Your task to perform on an android device: turn off sleep mode Image 0: 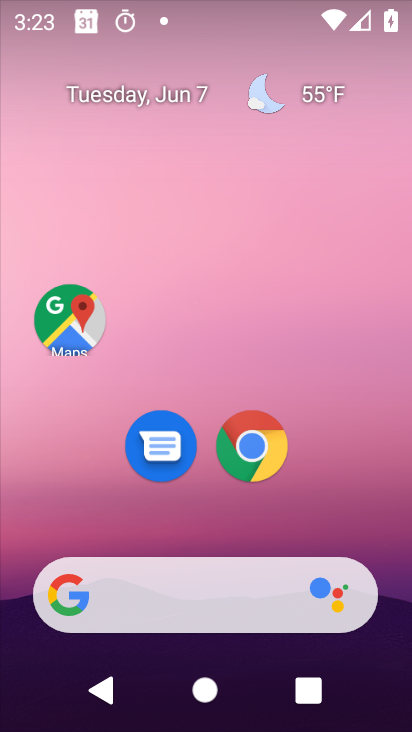
Step 0: drag from (226, 482) to (275, 2)
Your task to perform on an android device: turn off sleep mode Image 1: 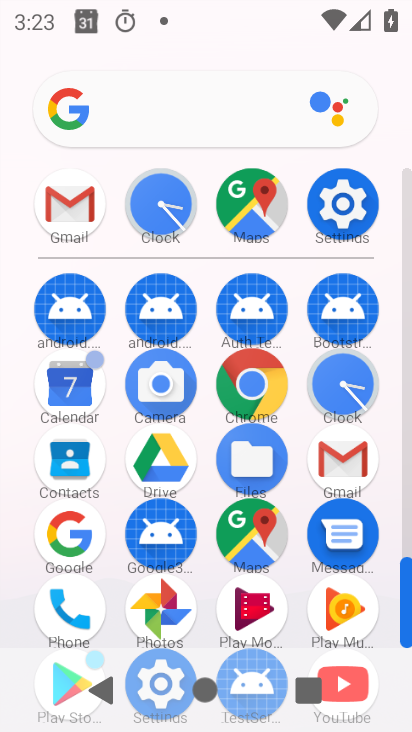
Step 1: click (334, 189)
Your task to perform on an android device: turn off sleep mode Image 2: 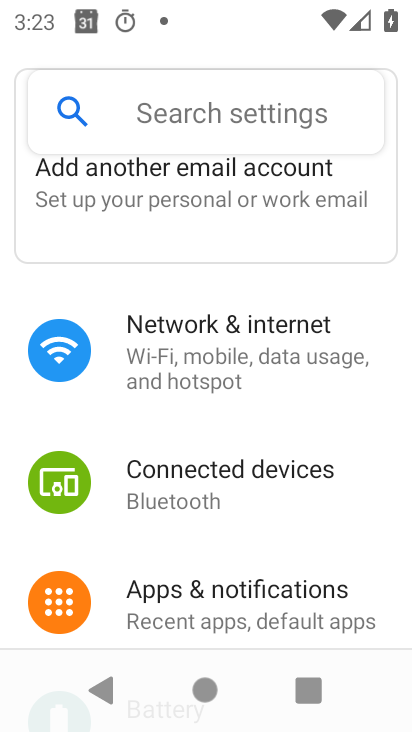
Step 2: click (261, 97)
Your task to perform on an android device: turn off sleep mode Image 3: 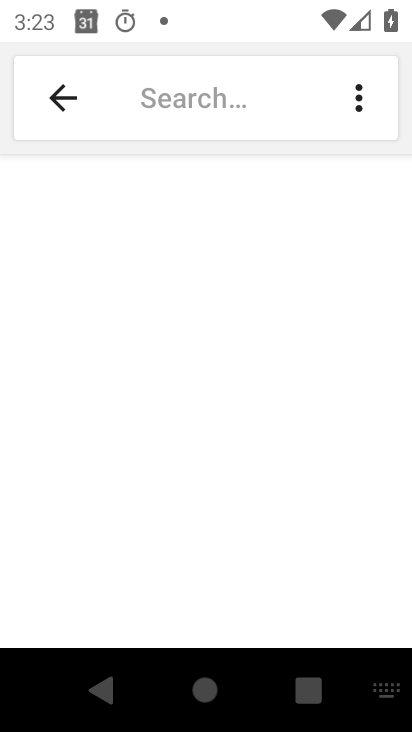
Step 3: type "sleep mode"
Your task to perform on an android device: turn off sleep mode Image 4: 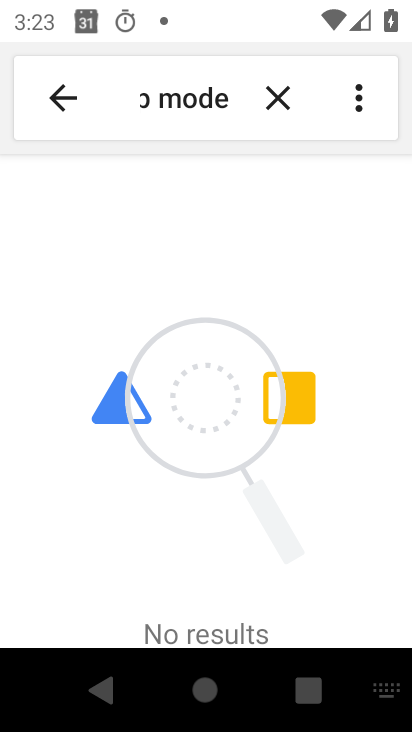
Step 4: task complete